Your task to perform on an android device: Search for sushi restaurants on Maps Image 0: 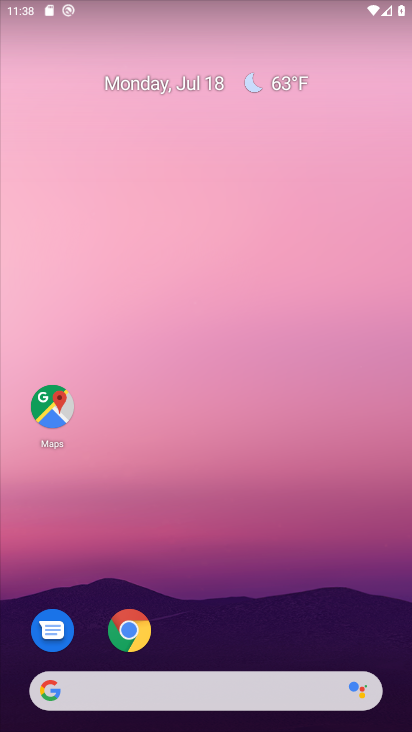
Step 0: click (57, 413)
Your task to perform on an android device: Search for sushi restaurants on Maps Image 1: 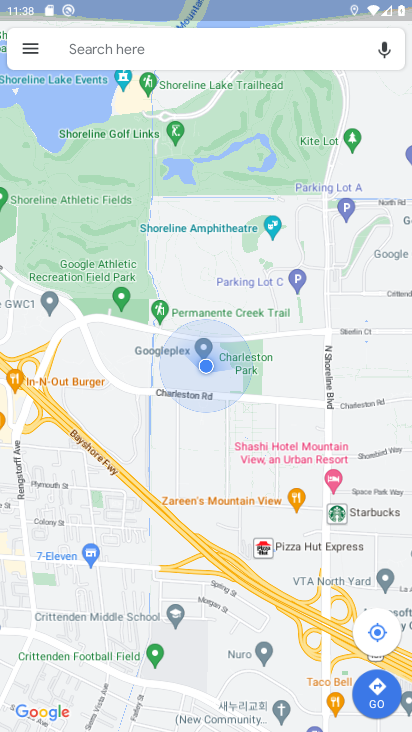
Step 1: click (180, 42)
Your task to perform on an android device: Search for sushi restaurants on Maps Image 2: 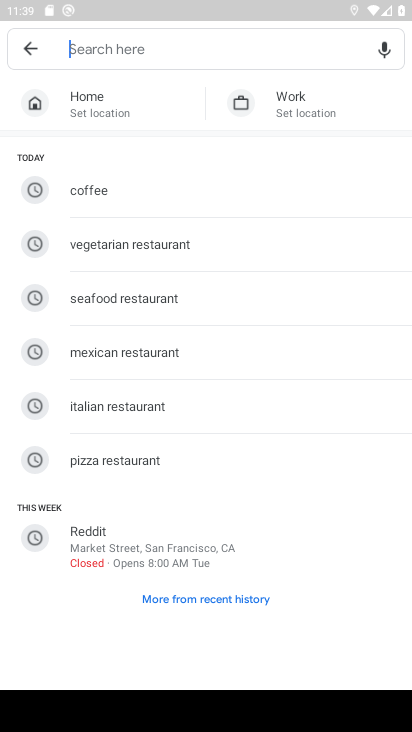
Step 2: type "sushi restaurents"
Your task to perform on an android device: Search for sushi restaurants on Maps Image 3: 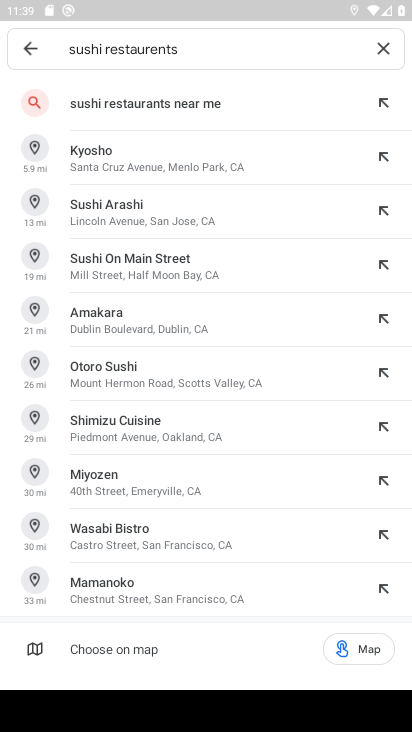
Step 3: drag from (135, 109) to (149, 23)
Your task to perform on an android device: Search for sushi restaurants on Maps Image 4: 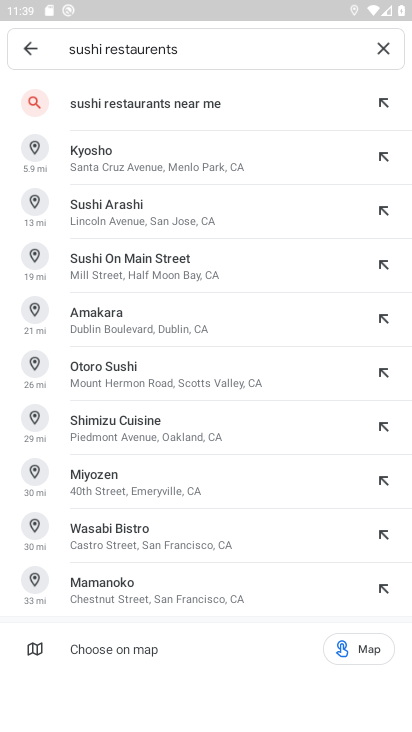
Step 4: click (138, 107)
Your task to perform on an android device: Search for sushi restaurants on Maps Image 5: 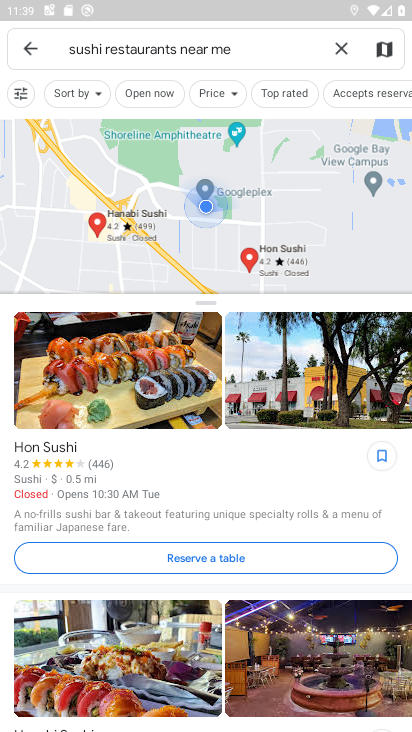
Step 5: task complete